Your task to perform on an android device: snooze an email in the gmail app Image 0: 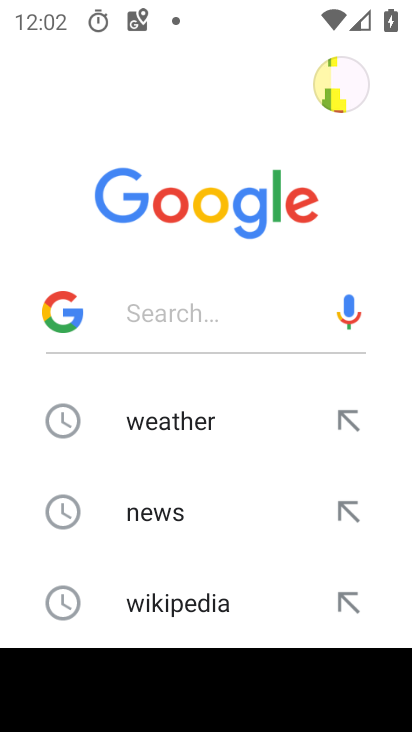
Step 0: press home button
Your task to perform on an android device: snooze an email in the gmail app Image 1: 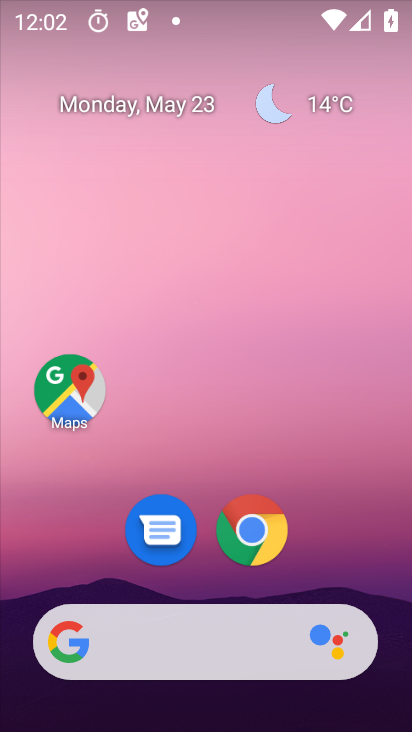
Step 1: drag from (397, 49) to (373, 20)
Your task to perform on an android device: snooze an email in the gmail app Image 2: 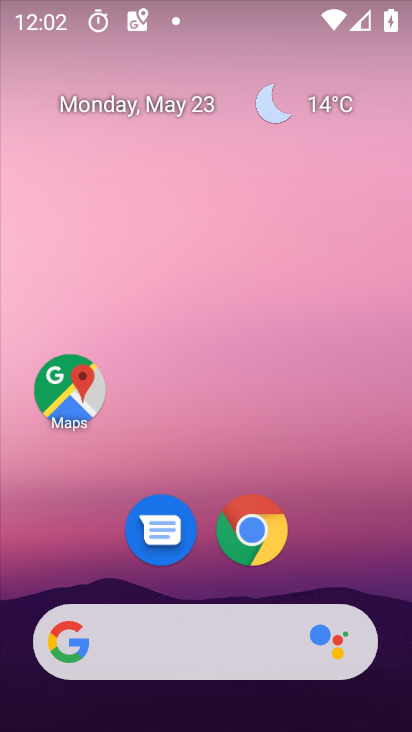
Step 2: drag from (401, 669) to (323, 100)
Your task to perform on an android device: snooze an email in the gmail app Image 3: 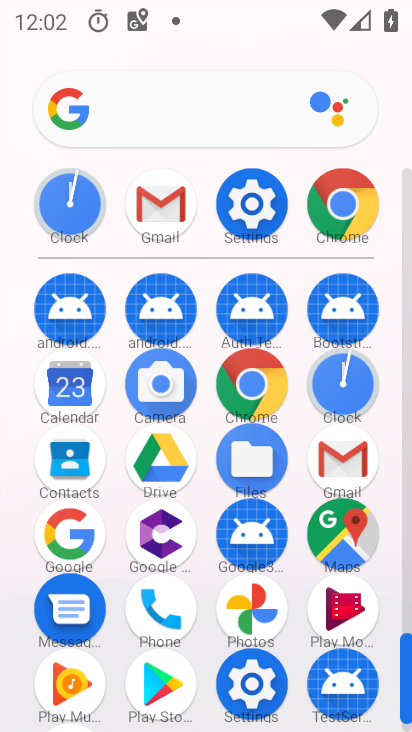
Step 3: click (350, 441)
Your task to perform on an android device: snooze an email in the gmail app Image 4: 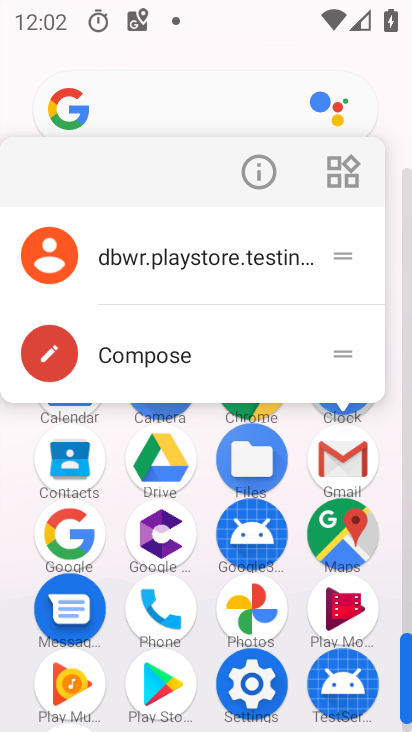
Step 4: click (337, 471)
Your task to perform on an android device: snooze an email in the gmail app Image 5: 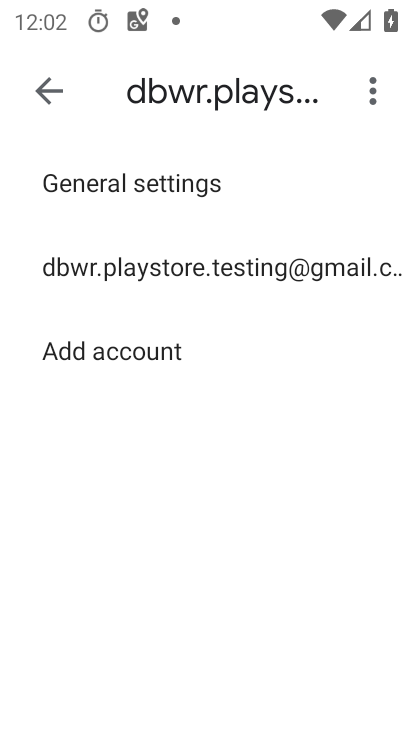
Step 5: click (51, 81)
Your task to perform on an android device: snooze an email in the gmail app Image 6: 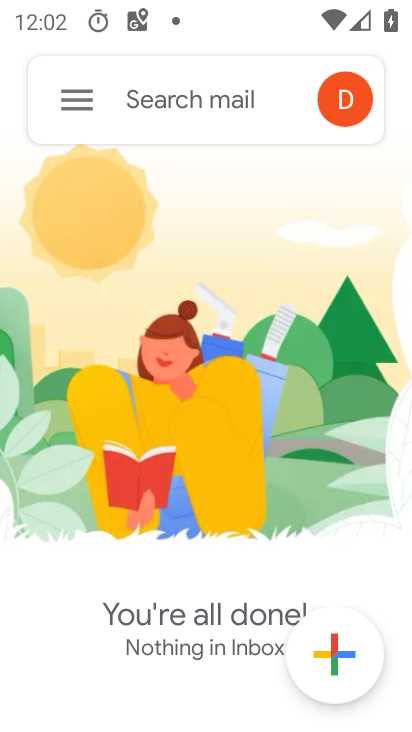
Step 6: click (66, 97)
Your task to perform on an android device: snooze an email in the gmail app Image 7: 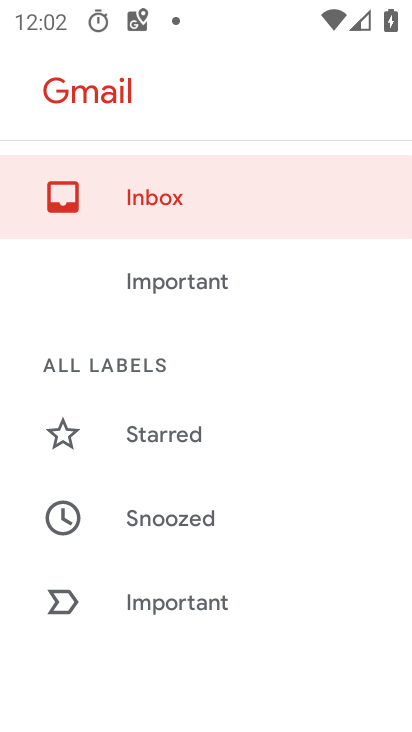
Step 7: click (122, 194)
Your task to perform on an android device: snooze an email in the gmail app Image 8: 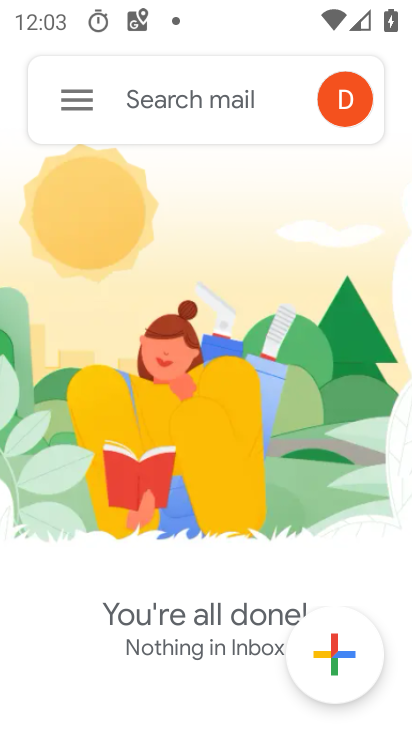
Step 8: click (64, 101)
Your task to perform on an android device: snooze an email in the gmail app Image 9: 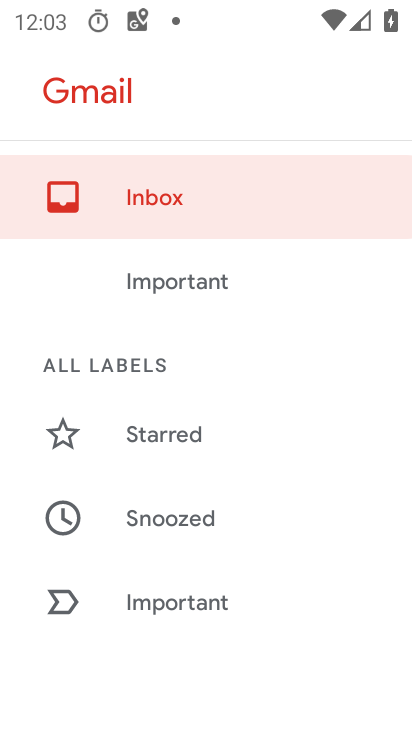
Step 9: task complete